Your task to perform on an android device: Go to Google maps Image 0: 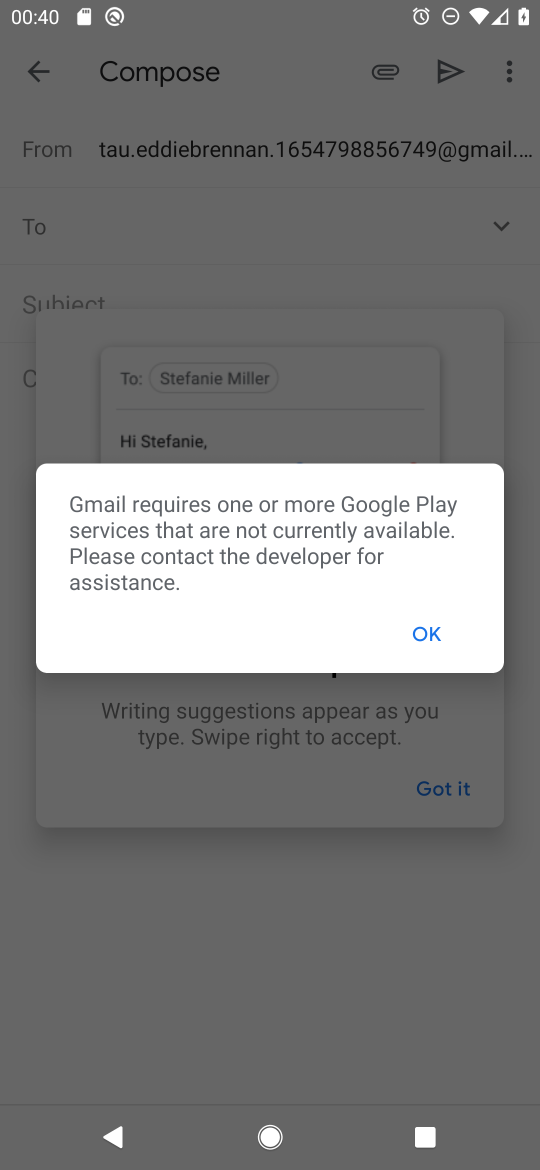
Step 0: press home button
Your task to perform on an android device: Go to Google maps Image 1: 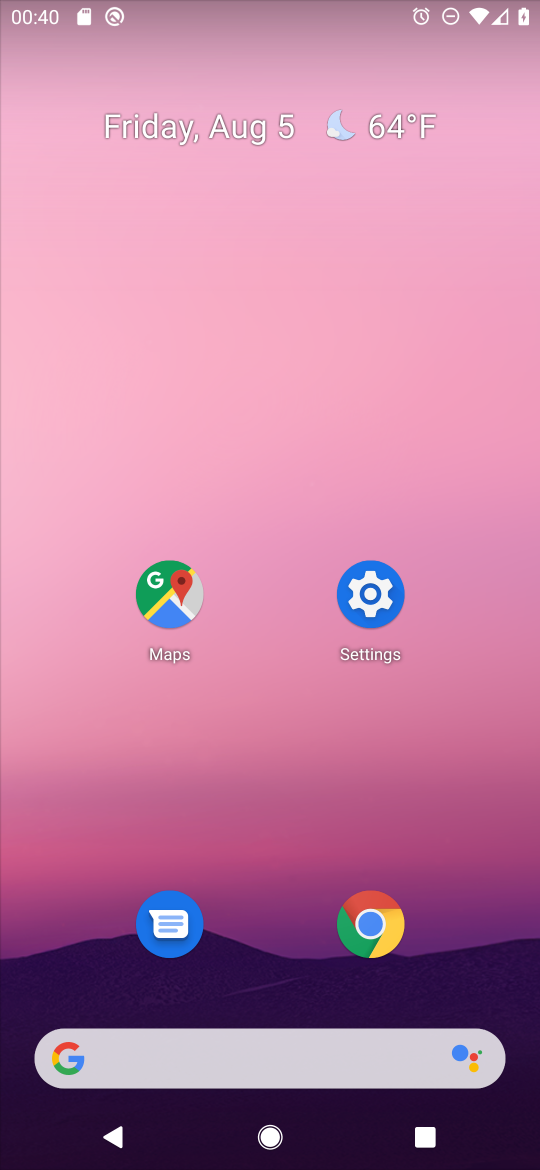
Step 1: click (178, 587)
Your task to perform on an android device: Go to Google maps Image 2: 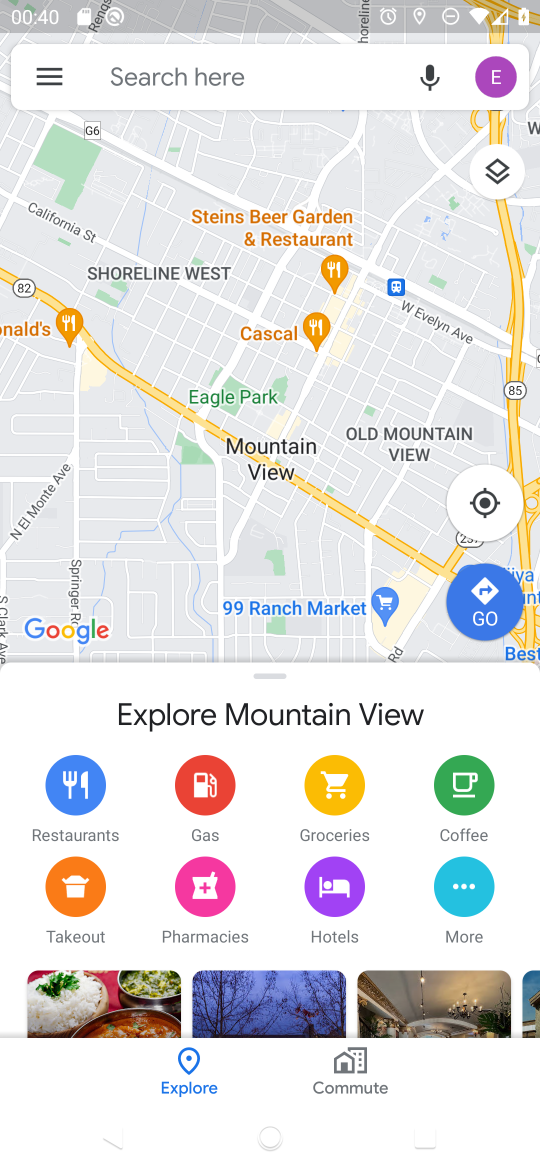
Step 2: task complete